Your task to perform on an android device: Open maps Image 0: 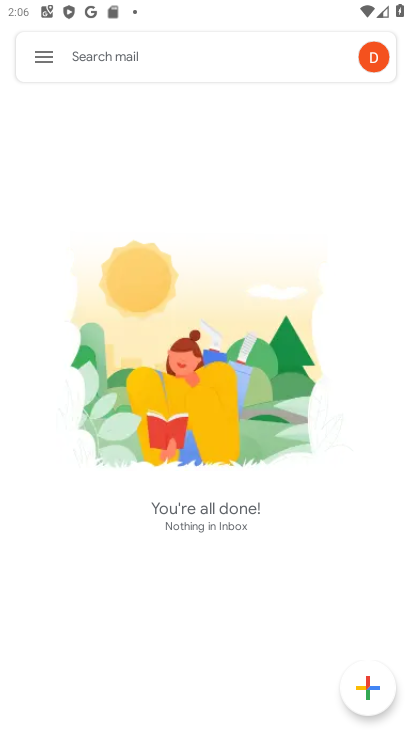
Step 0: press home button
Your task to perform on an android device: Open maps Image 1: 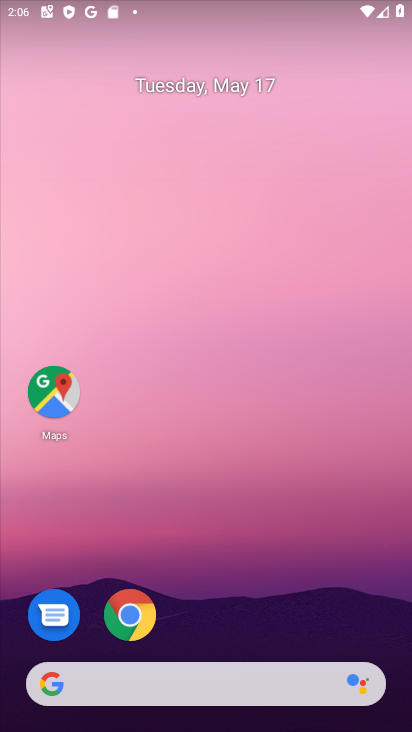
Step 1: click (60, 408)
Your task to perform on an android device: Open maps Image 2: 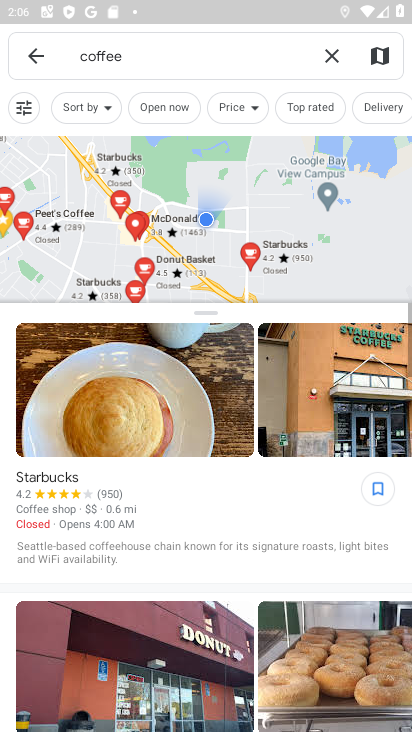
Step 2: task complete